Your task to perform on an android device: Open Wikipedia Image 0: 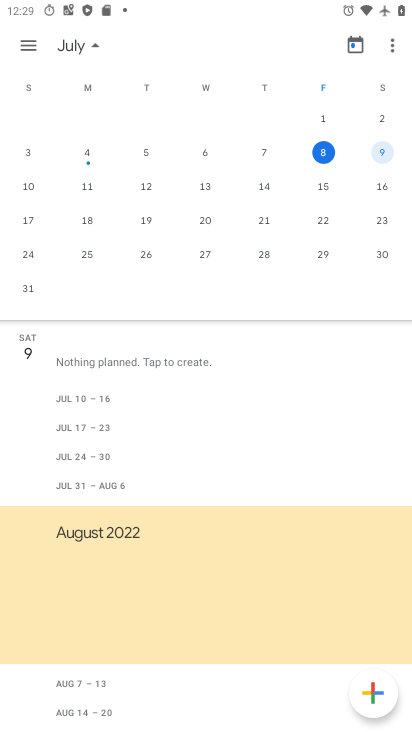
Step 0: press home button
Your task to perform on an android device: Open Wikipedia Image 1: 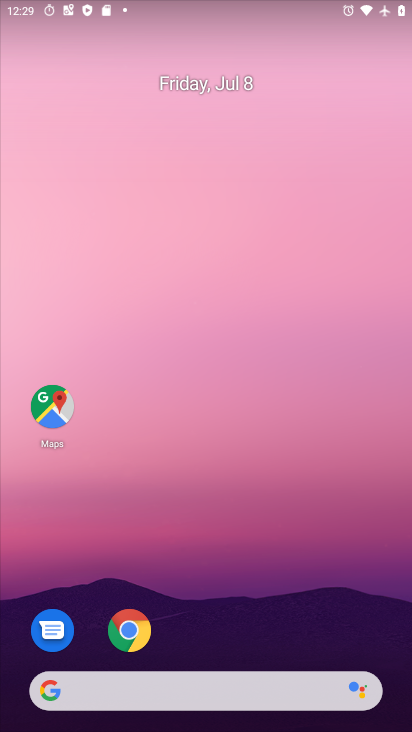
Step 1: drag from (232, 608) to (219, 169)
Your task to perform on an android device: Open Wikipedia Image 2: 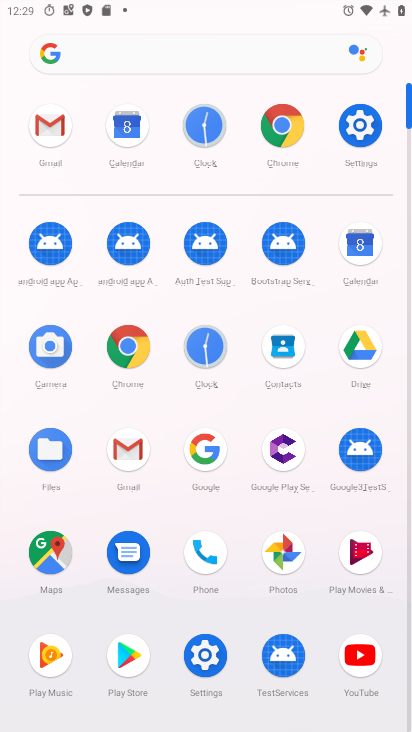
Step 2: click (280, 143)
Your task to perform on an android device: Open Wikipedia Image 3: 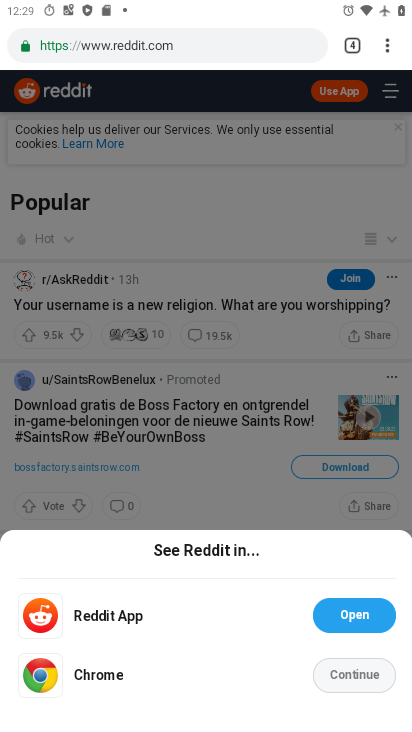
Step 3: click (363, 46)
Your task to perform on an android device: Open Wikipedia Image 4: 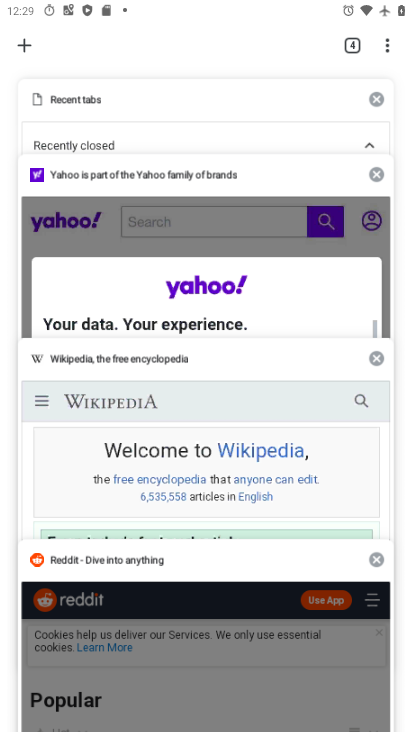
Step 4: click (350, 47)
Your task to perform on an android device: Open Wikipedia Image 5: 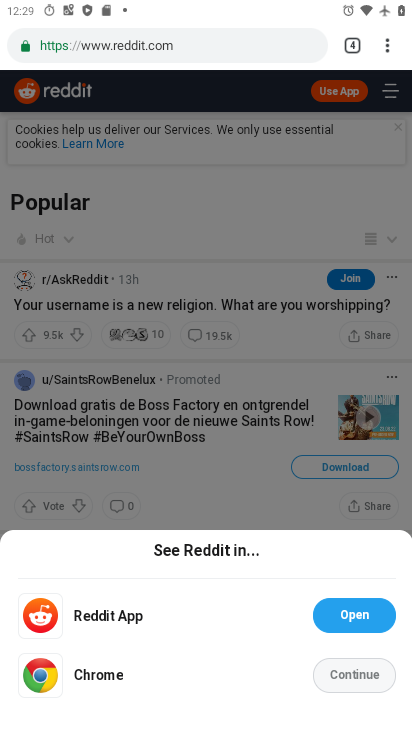
Step 5: click (354, 44)
Your task to perform on an android device: Open Wikipedia Image 6: 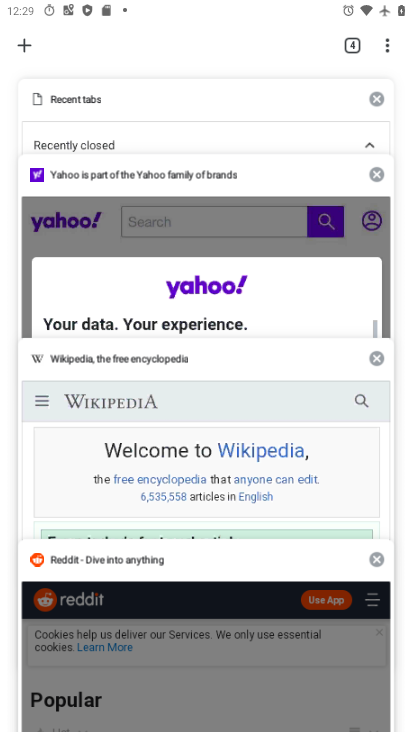
Step 6: click (203, 452)
Your task to perform on an android device: Open Wikipedia Image 7: 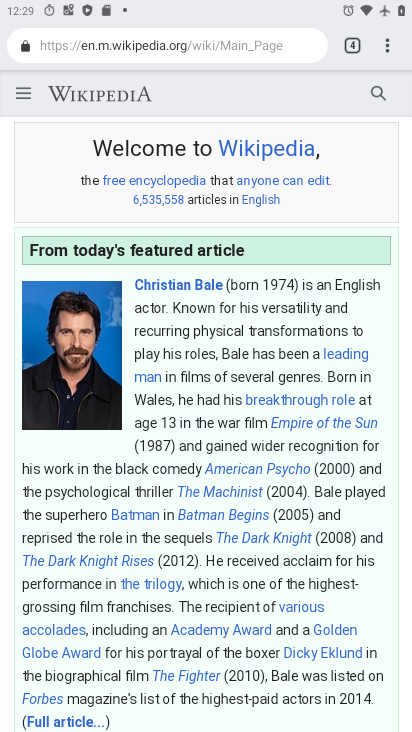
Step 7: task complete